Your task to perform on an android device: turn off wifi Image 0: 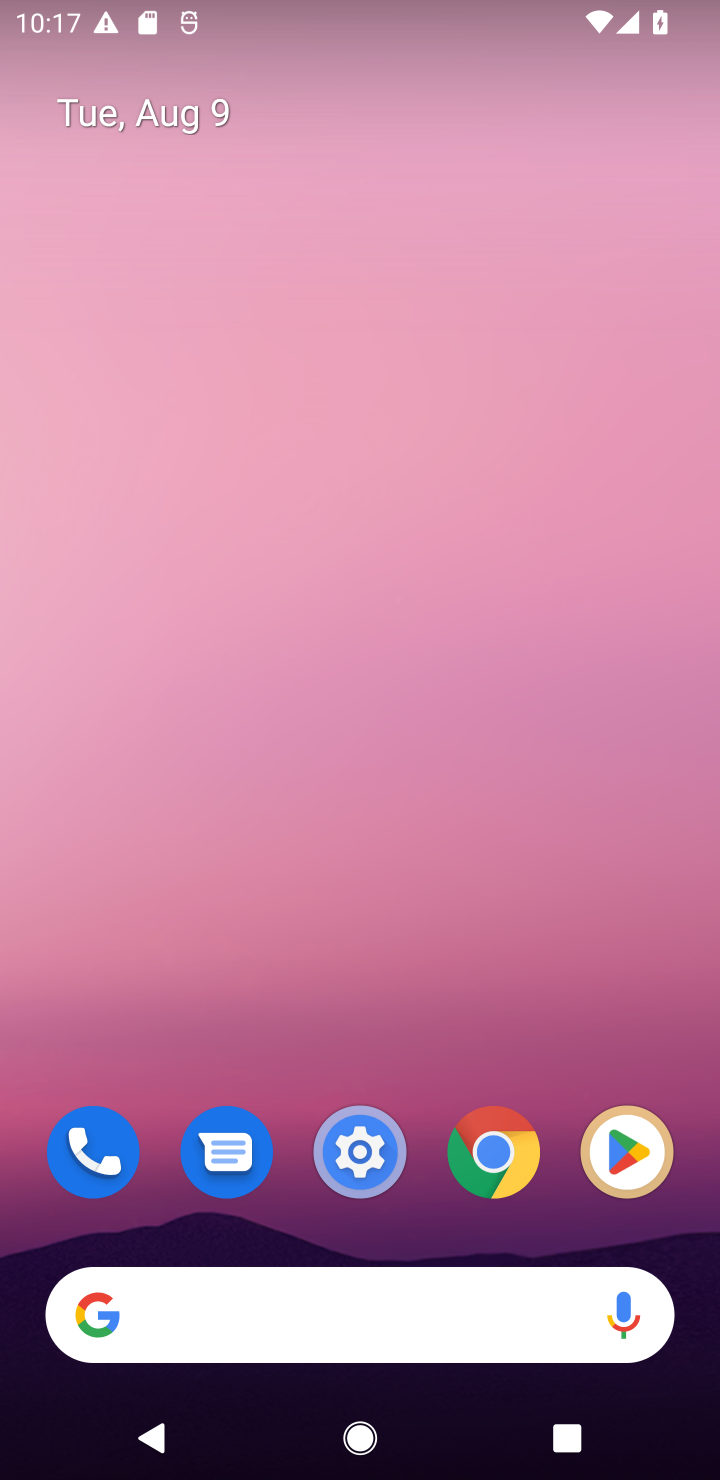
Step 0: press home button
Your task to perform on an android device: turn off wifi Image 1: 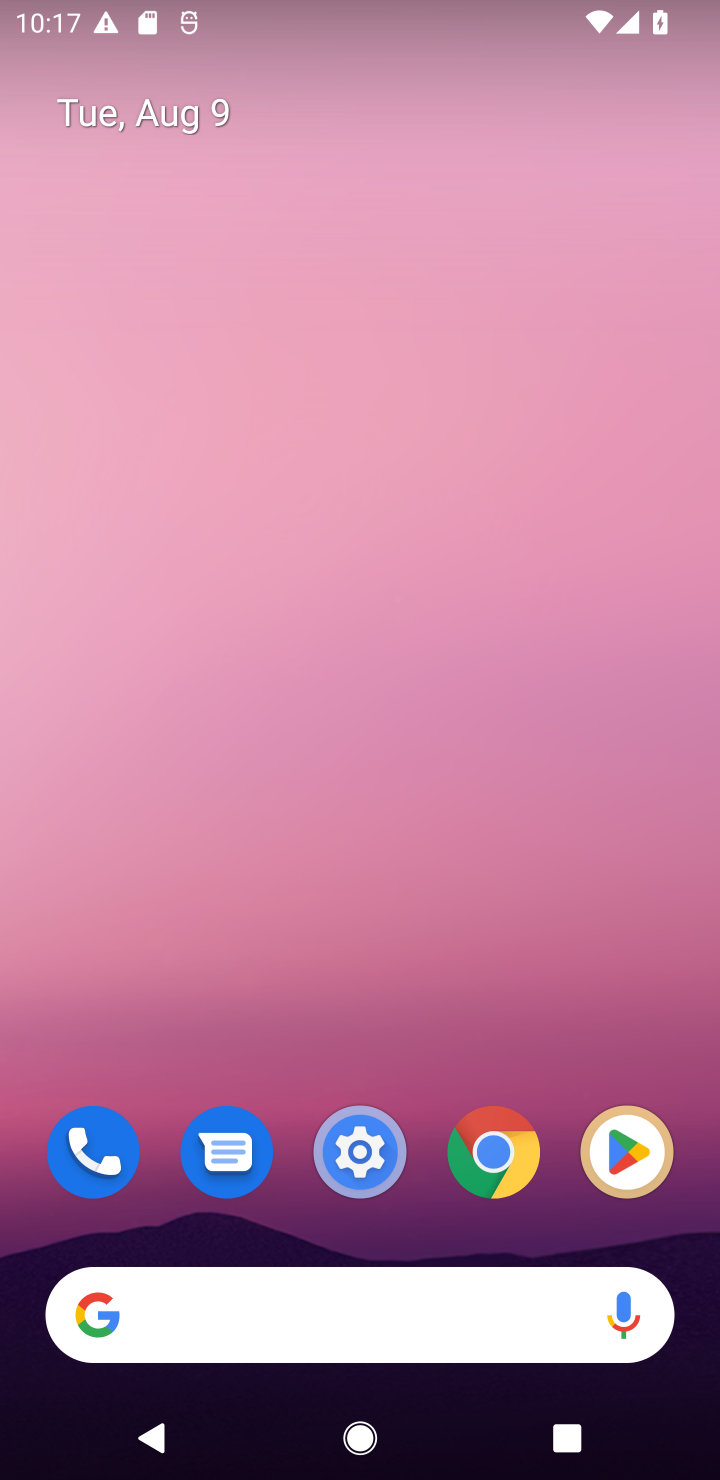
Step 1: drag from (413, 1063) to (397, 64)
Your task to perform on an android device: turn off wifi Image 2: 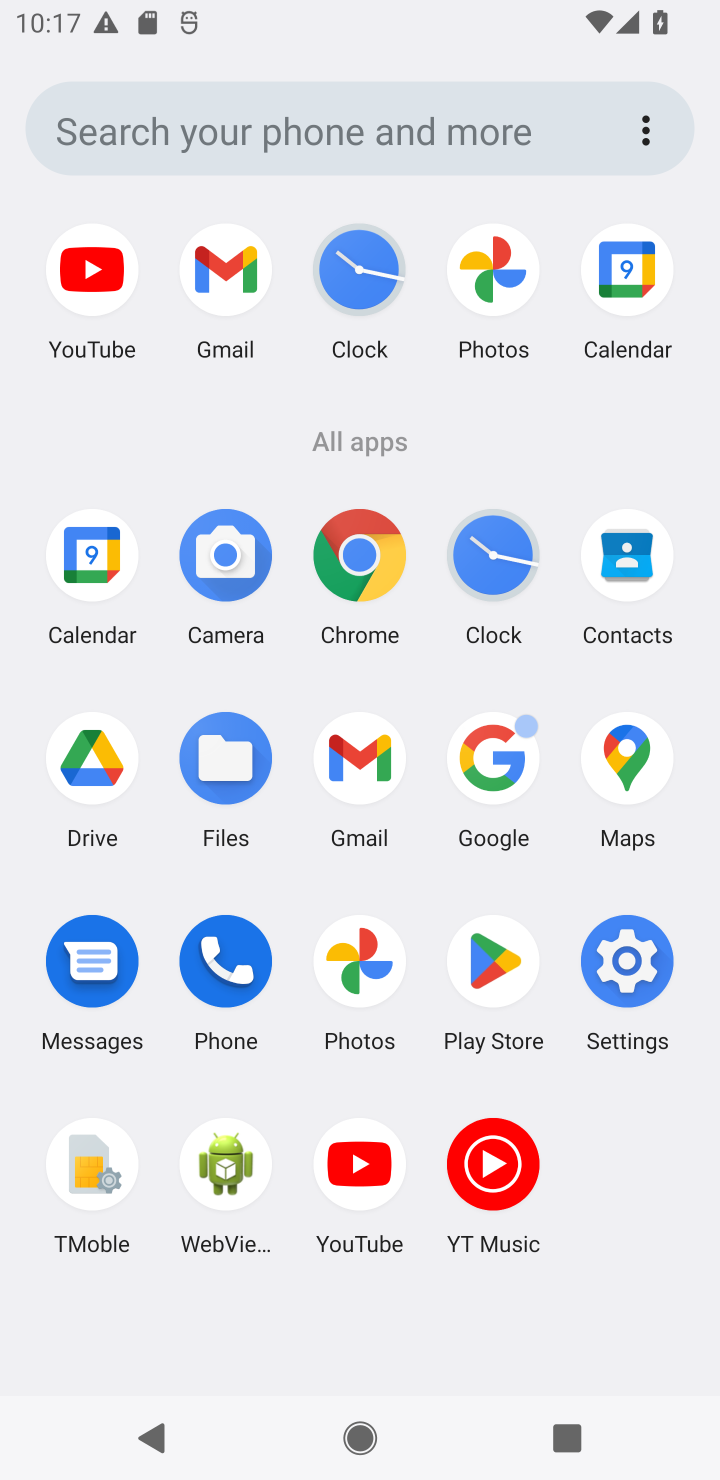
Step 2: click (629, 949)
Your task to perform on an android device: turn off wifi Image 3: 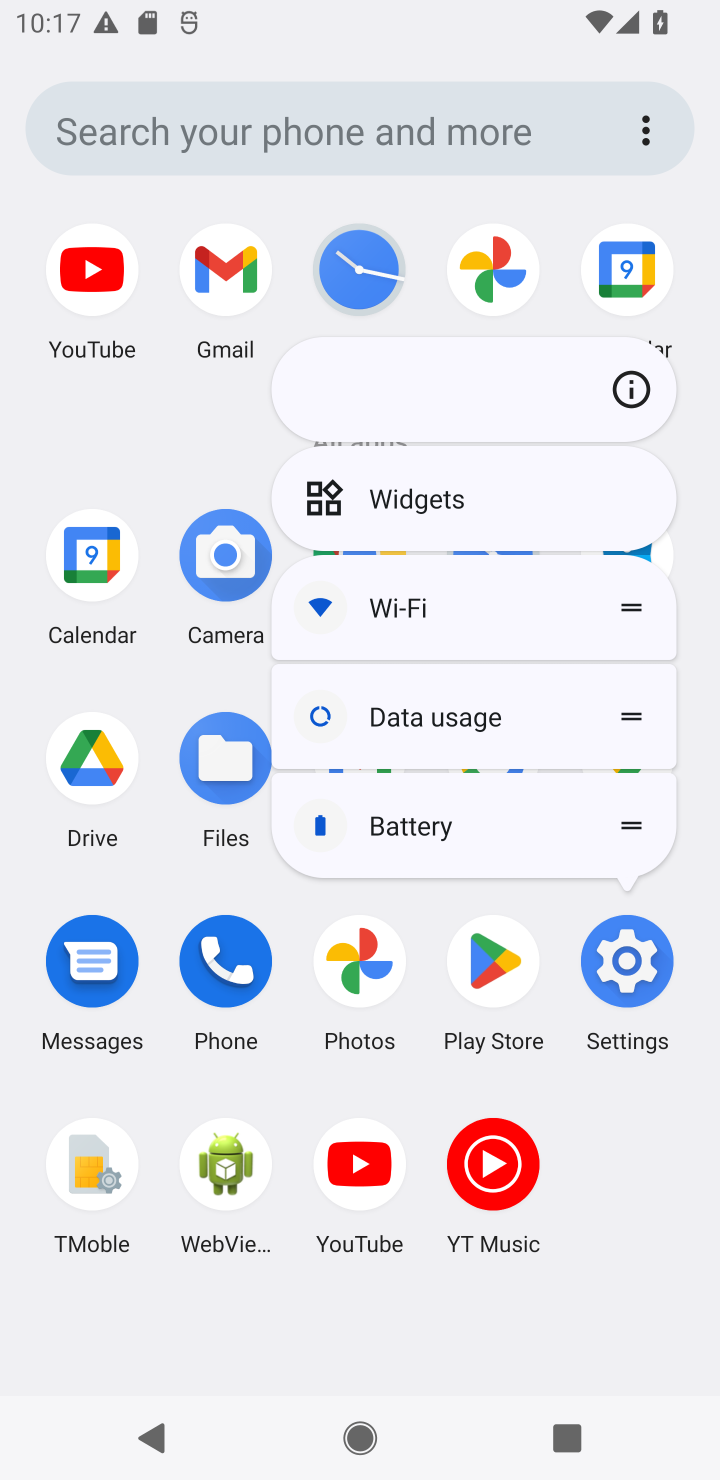
Step 3: click (633, 975)
Your task to perform on an android device: turn off wifi Image 4: 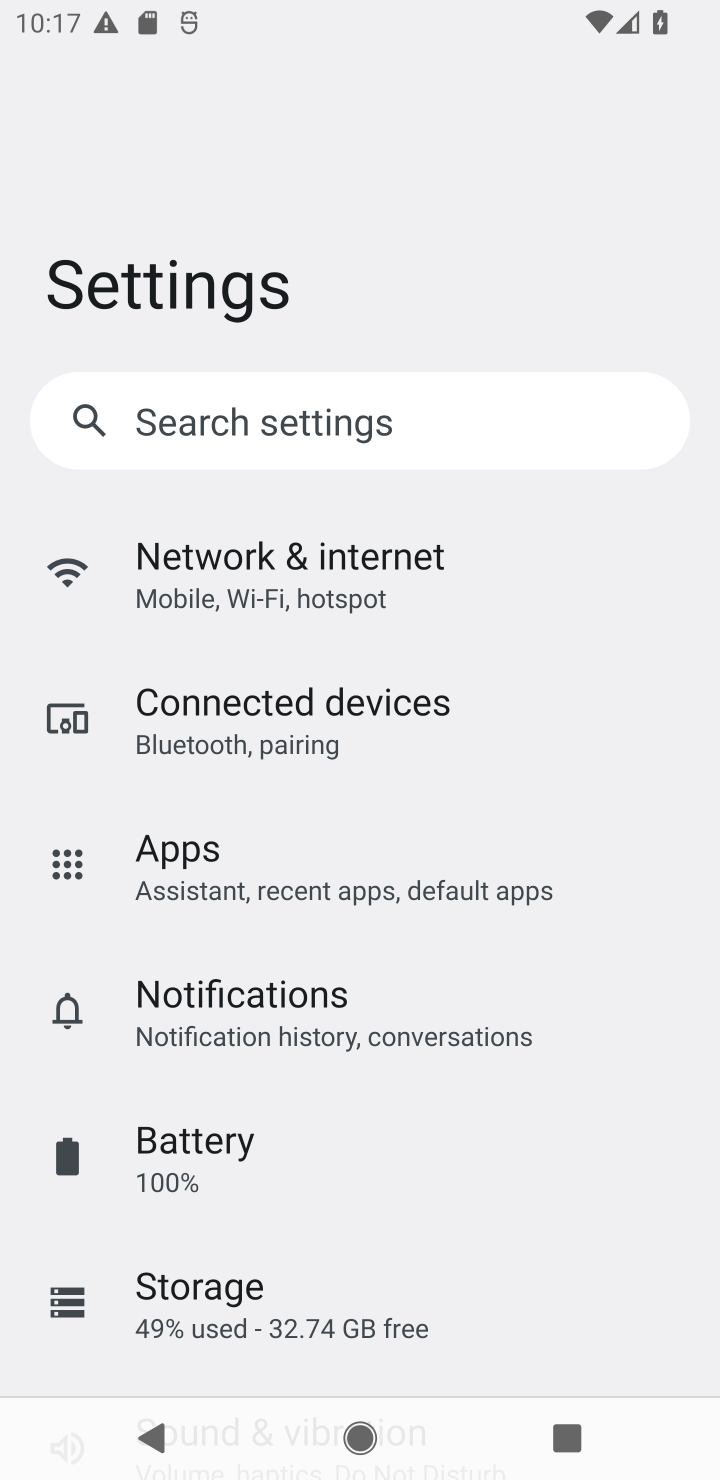
Step 4: click (266, 587)
Your task to perform on an android device: turn off wifi Image 5: 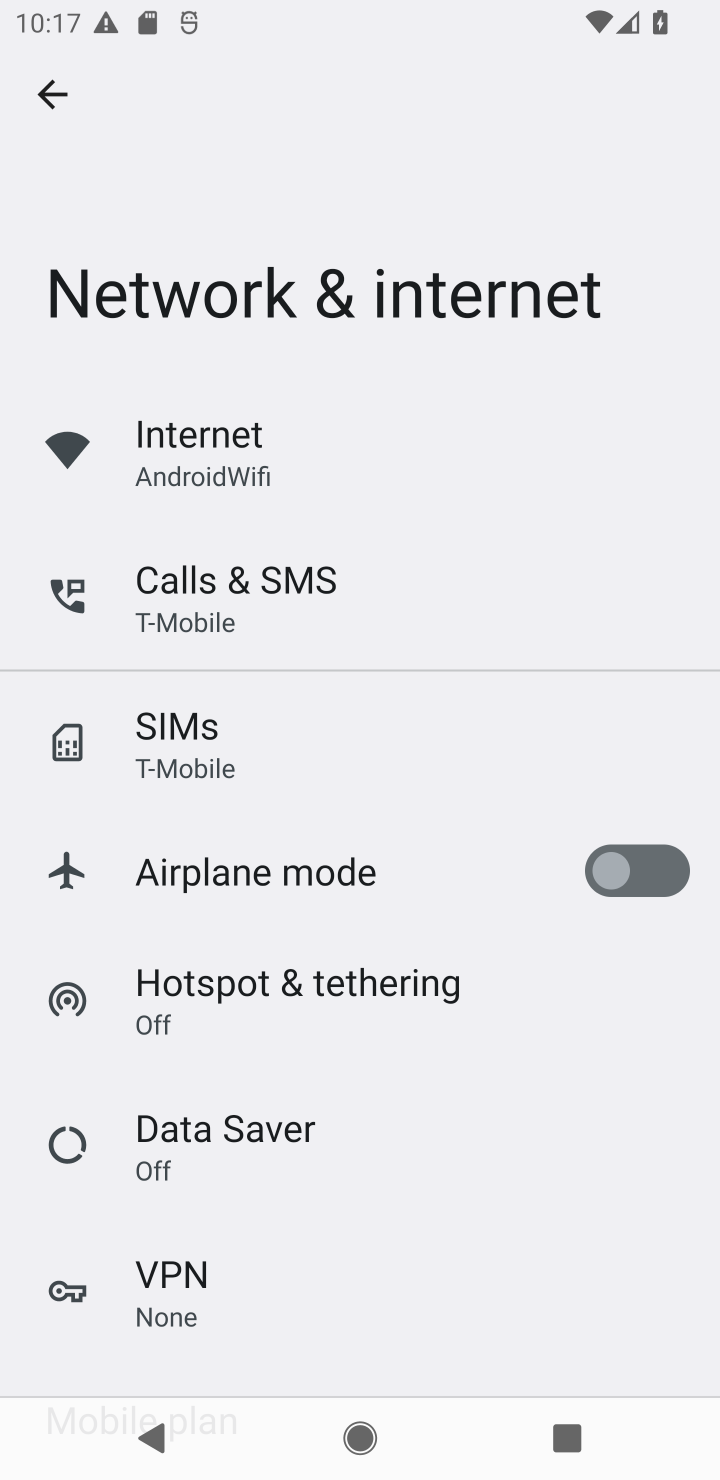
Step 5: click (284, 461)
Your task to perform on an android device: turn off wifi Image 6: 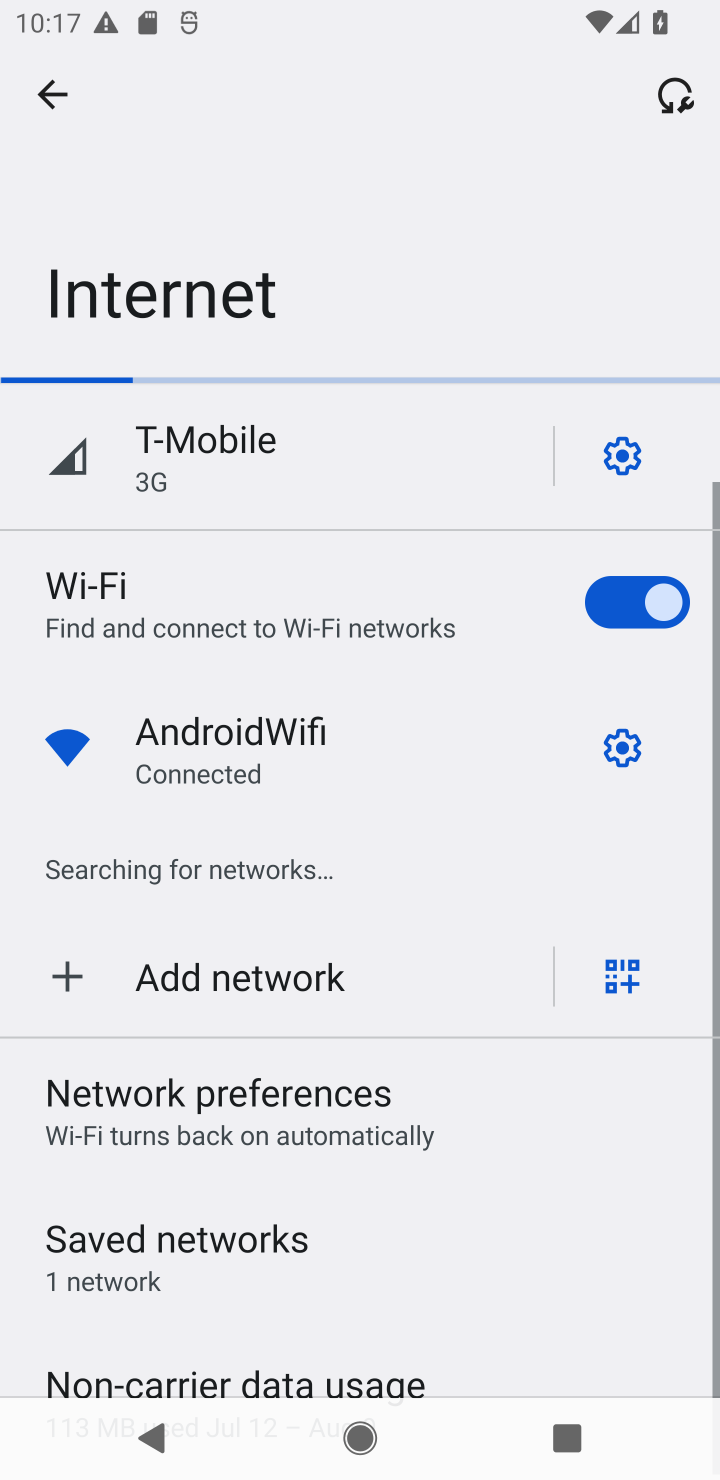
Step 6: click (630, 589)
Your task to perform on an android device: turn off wifi Image 7: 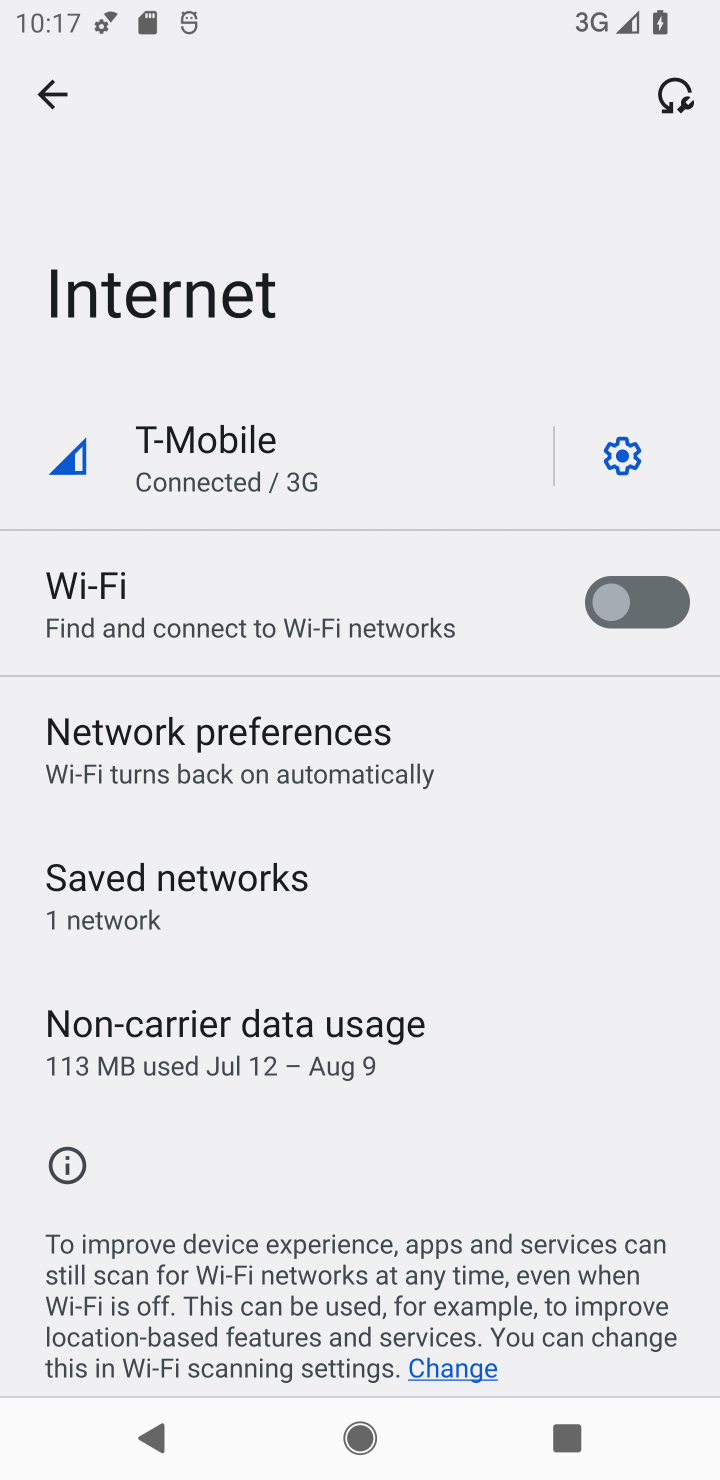
Step 7: task complete